Your task to perform on an android device: turn on javascript in the chrome app Image 0: 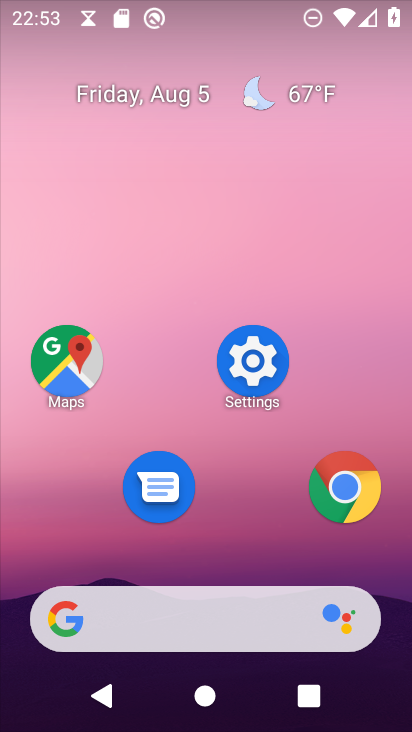
Step 0: click (339, 488)
Your task to perform on an android device: turn on javascript in the chrome app Image 1: 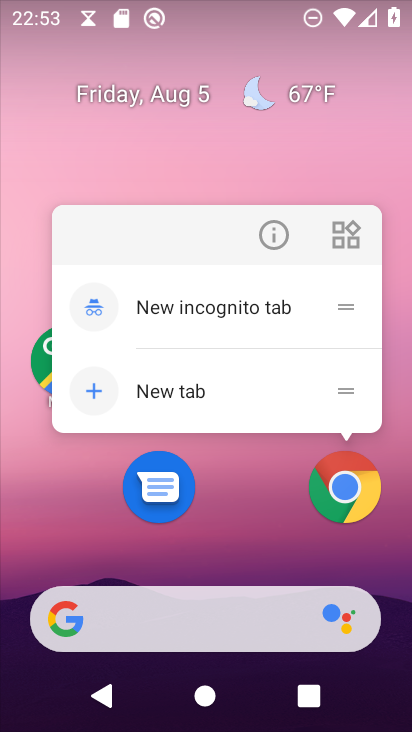
Step 1: click (356, 488)
Your task to perform on an android device: turn on javascript in the chrome app Image 2: 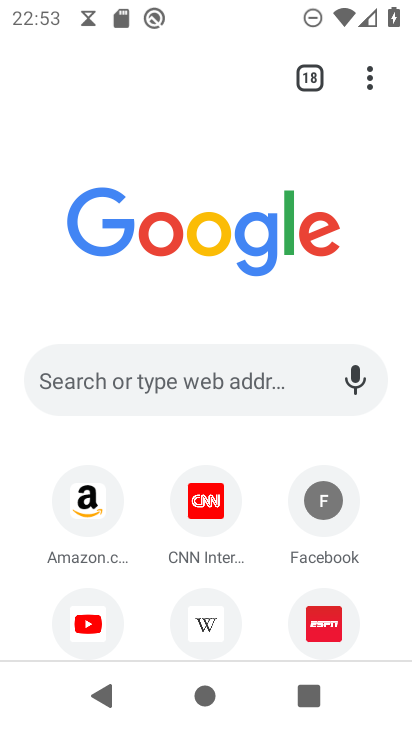
Step 2: drag from (366, 80) to (176, 550)
Your task to perform on an android device: turn on javascript in the chrome app Image 3: 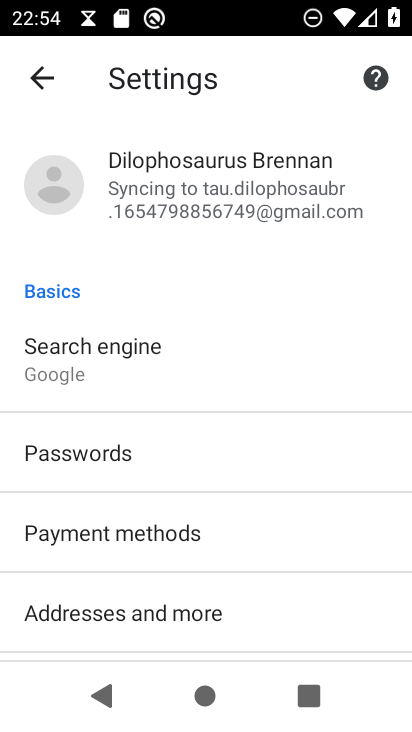
Step 3: drag from (268, 583) to (361, 152)
Your task to perform on an android device: turn on javascript in the chrome app Image 4: 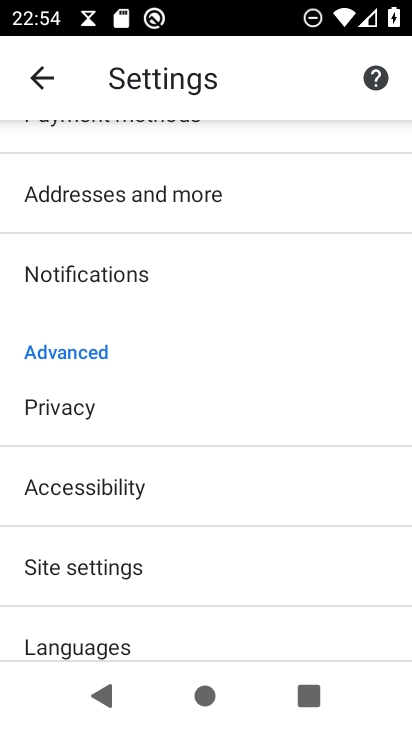
Step 4: click (121, 572)
Your task to perform on an android device: turn on javascript in the chrome app Image 5: 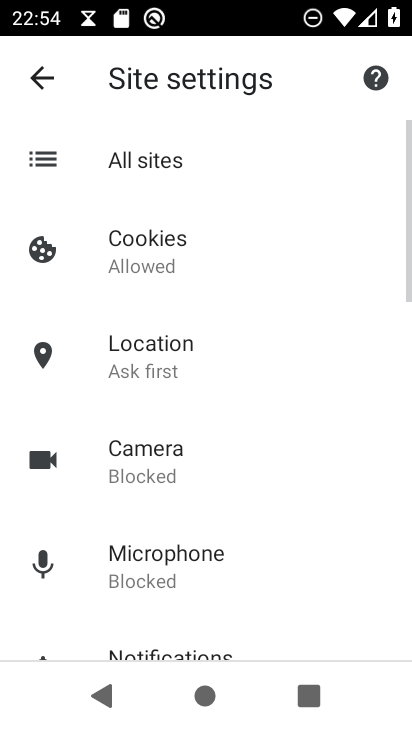
Step 5: drag from (272, 549) to (313, 214)
Your task to perform on an android device: turn on javascript in the chrome app Image 6: 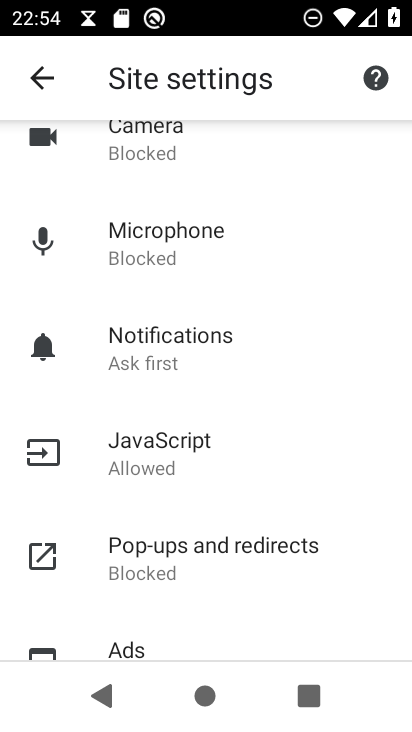
Step 6: click (146, 455)
Your task to perform on an android device: turn on javascript in the chrome app Image 7: 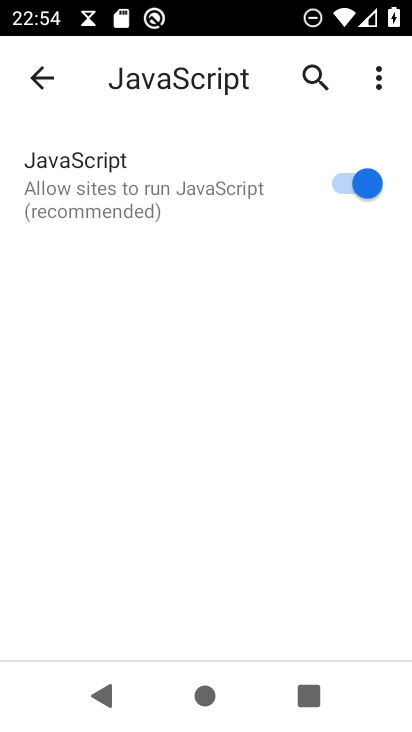
Step 7: task complete